Your task to perform on an android device: make emails show in primary in the gmail app Image 0: 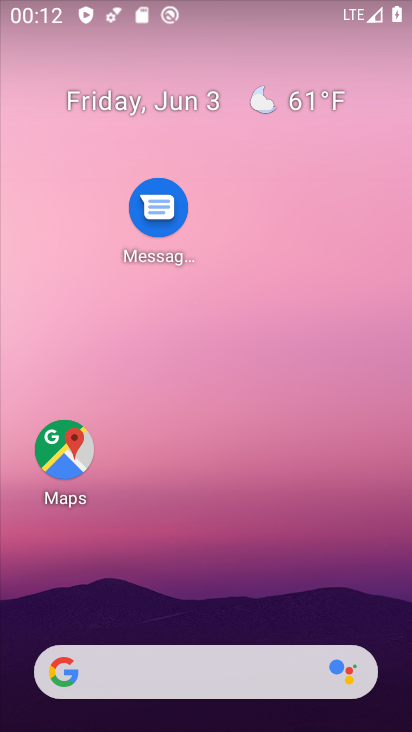
Step 0: drag from (199, 657) to (65, 30)
Your task to perform on an android device: make emails show in primary in the gmail app Image 1: 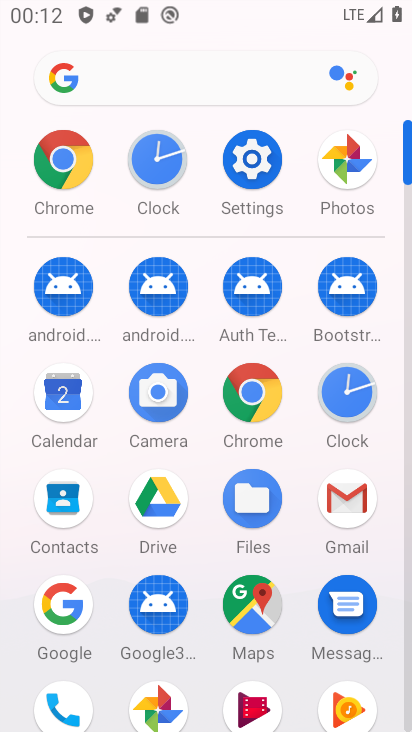
Step 1: click (349, 508)
Your task to perform on an android device: make emails show in primary in the gmail app Image 2: 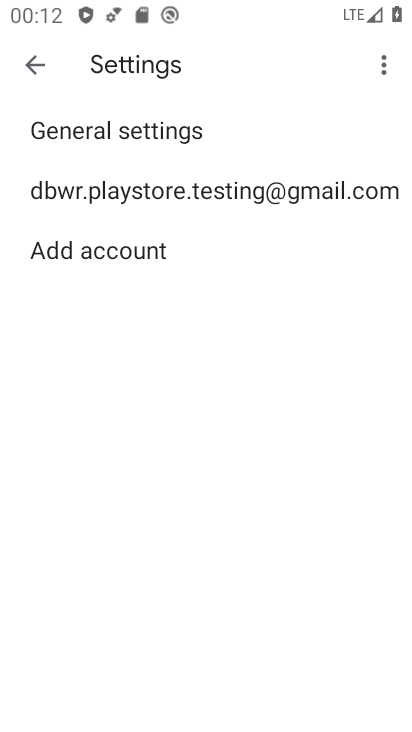
Step 2: click (38, 70)
Your task to perform on an android device: make emails show in primary in the gmail app Image 3: 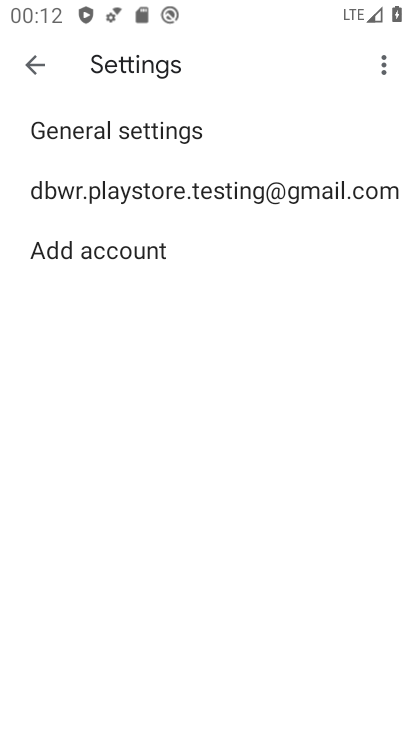
Step 3: click (38, 67)
Your task to perform on an android device: make emails show in primary in the gmail app Image 4: 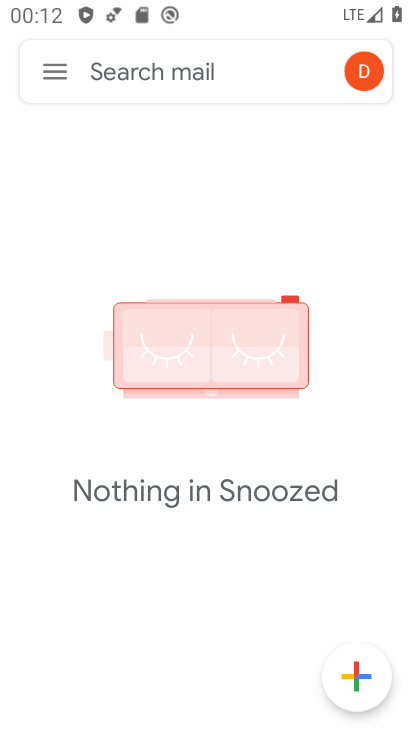
Step 4: click (38, 67)
Your task to perform on an android device: make emails show in primary in the gmail app Image 5: 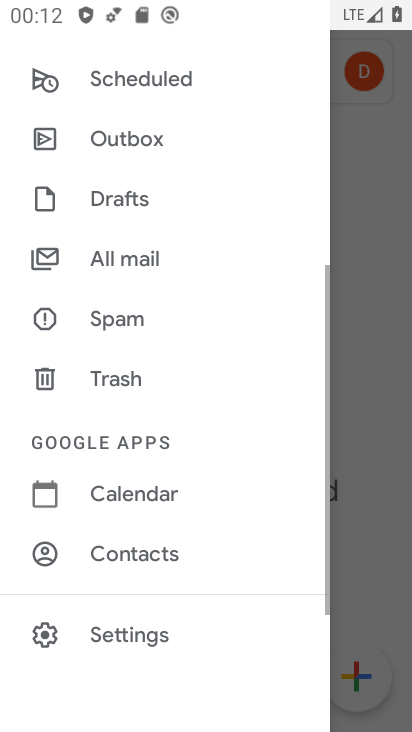
Step 5: drag from (200, 132) to (201, 695)
Your task to perform on an android device: make emails show in primary in the gmail app Image 6: 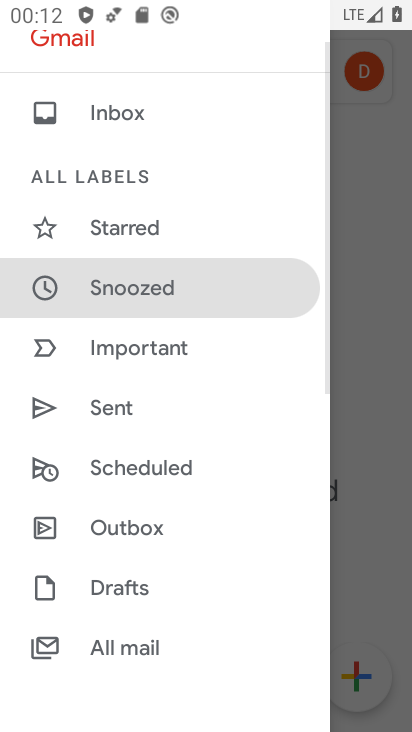
Step 6: drag from (188, 643) to (131, 178)
Your task to perform on an android device: make emails show in primary in the gmail app Image 7: 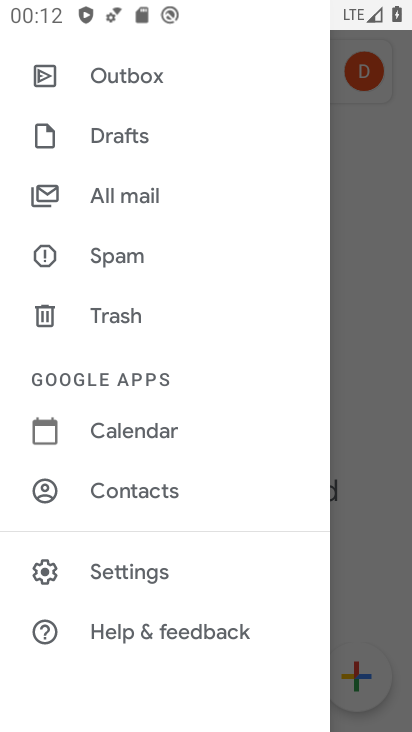
Step 7: click (126, 569)
Your task to perform on an android device: make emails show in primary in the gmail app Image 8: 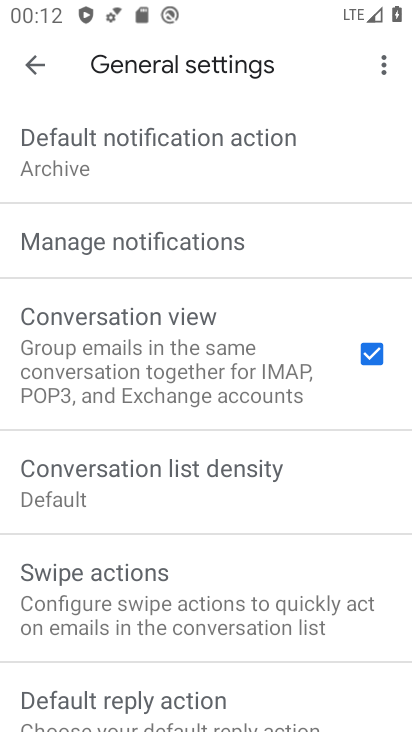
Step 8: click (25, 54)
Your task to perform on an android device: make emails show in primary in the gmail app Image 9: 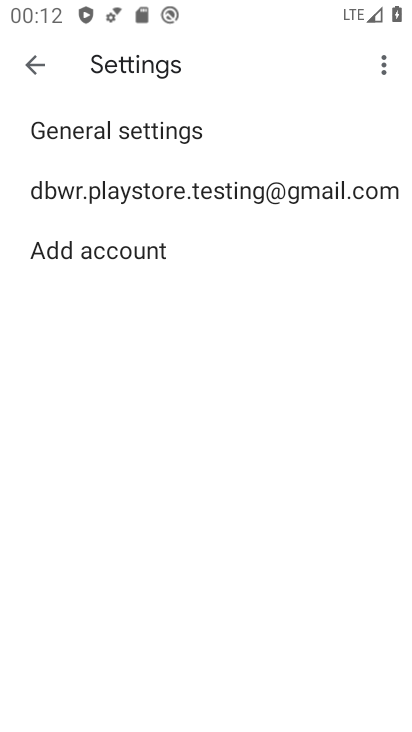
Step 9: click (95, 192)
Your task to perform on an android device: make emails show in primary in the gmail app Image 10: 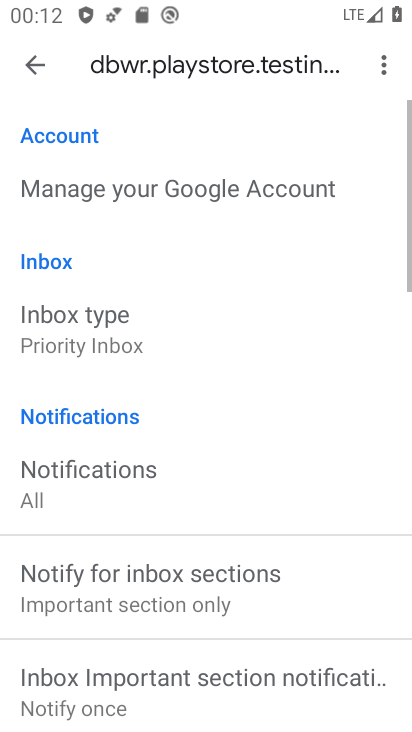
Step 10: click (103, 344)
Your task to perform on an android device: make emails show in primary in the gmail app Image 11: 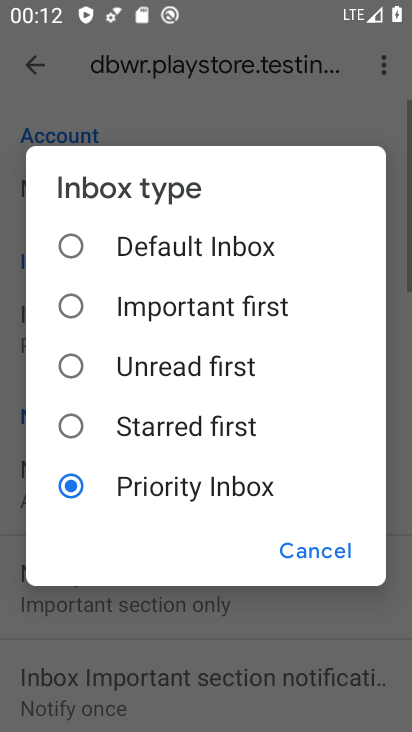
Step 11: click (137, 253)
Your task to perform on an android device: make emails show in primary in the gmail app Image 12: 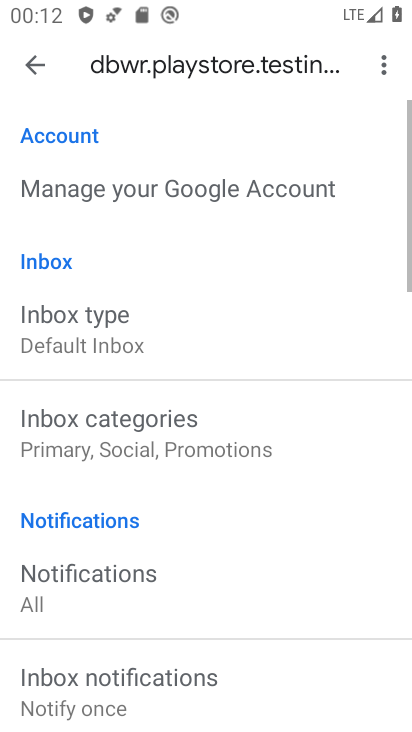
Step 12: click (44, 63)
Your task to perform on an android device: make emails show in primary in the gmail app Image 13: 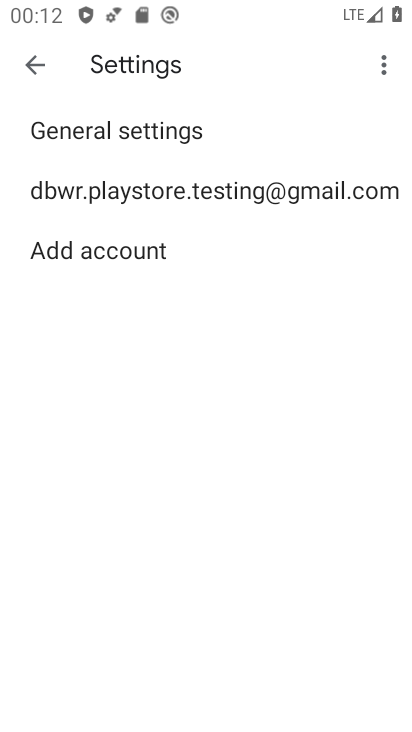
Step 13: click (44, 63)
Your task to perform on an android device: make emails show in primary in the gmail app Image 14: 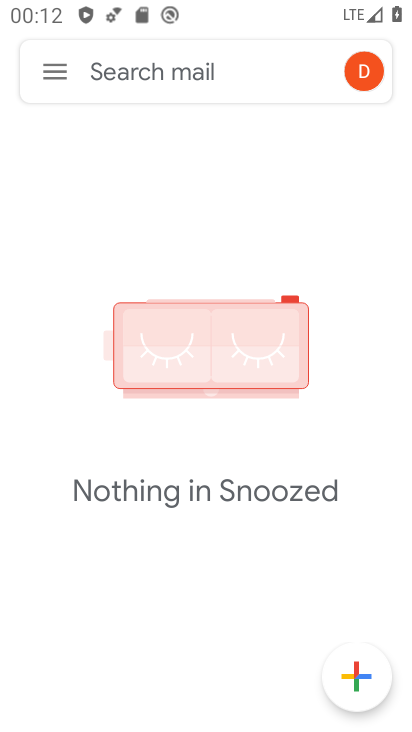
Step 14: click (35, 88)
Your task to perform on an android device: make emails show in primary in the gmail app Image 15: 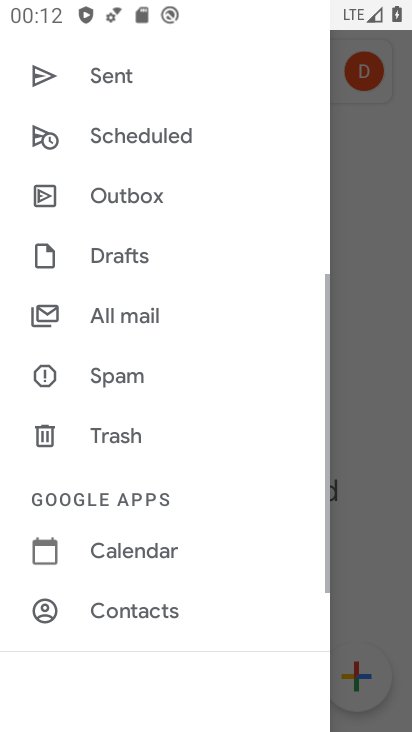
Step 15: drag from (164, 170) to (174, 716)
Your task to perform on an android device: make emails show in primary in the gmail app Image 16: 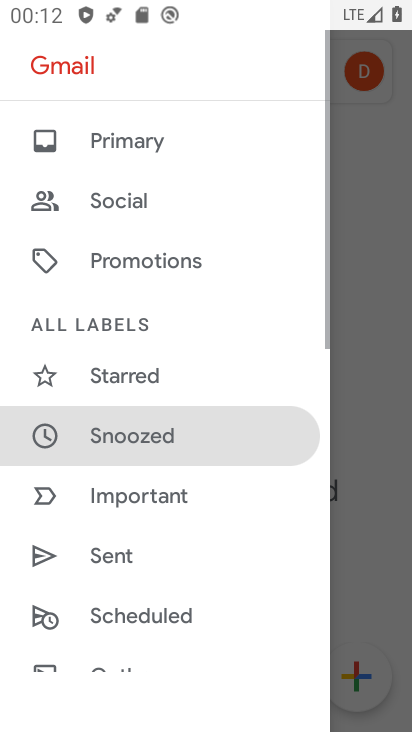
Step 16: click (134, 144)
Your task to perform on an android device: make emails show in primary in the gmail app Image 17: 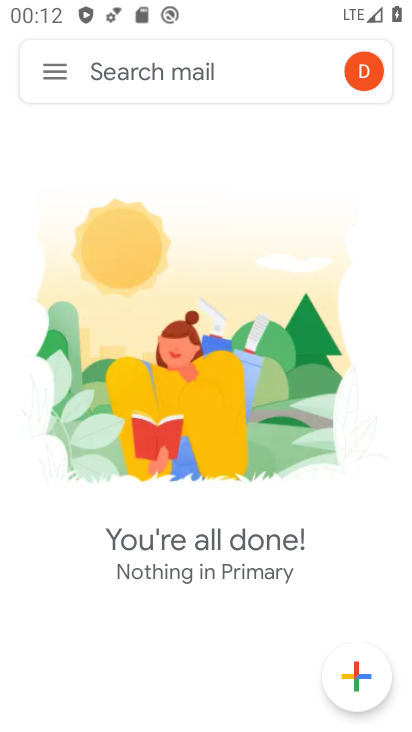
Step 17: task complete